Your task to perform on an android device: check the backup settings in the google photos Image 0: 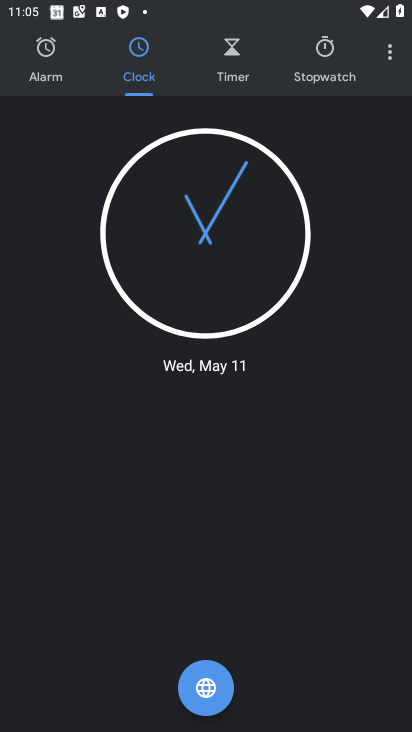
Step 0: press home button
Your task to perform on an android device: check the backup settings in the google photos Image 1: 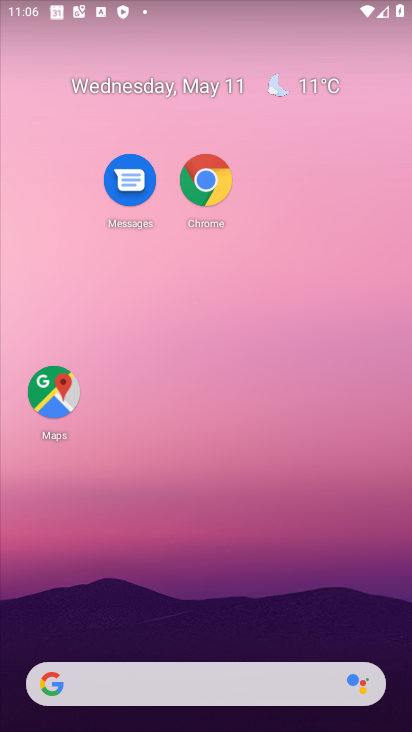
Step 1: drag from (190, 617) to (279, 249)
Your task to perform on an android device: check the backup settings in the google photos Image 2: 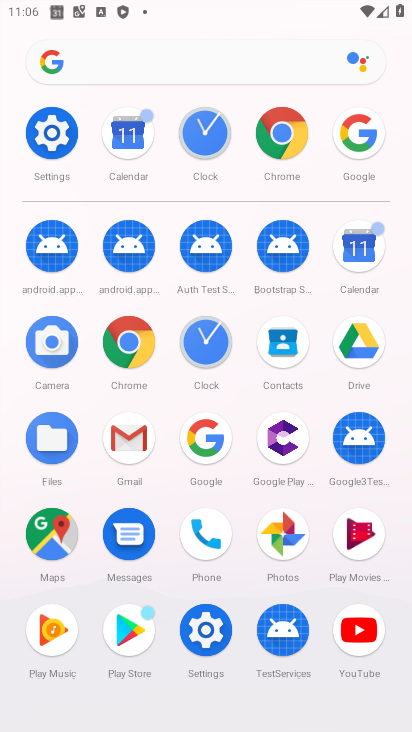
Step 2: click (293, 542)
Your task to perform on an android device: check the backup settings in the google photos Image 3: 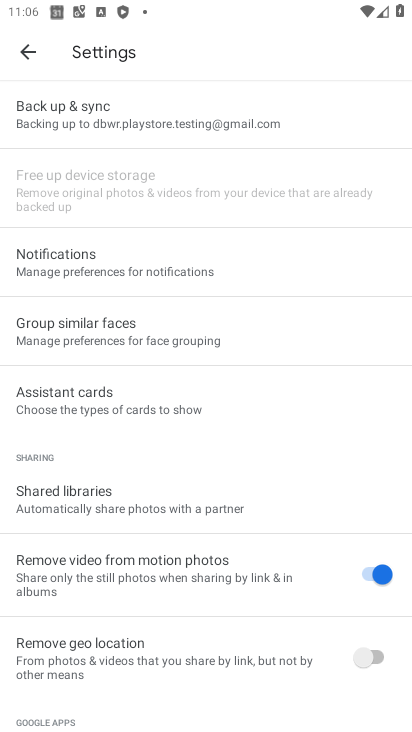
Step 3: press back button
Your task to perform on an android device: check the backup settings in the google photos Image 4: 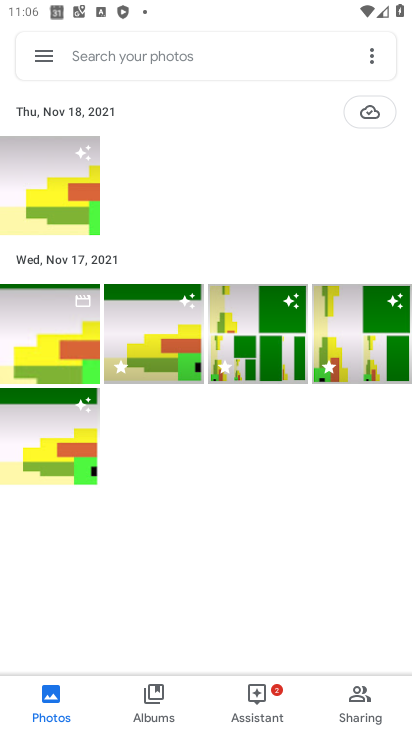
Step 4: click (38, 72)
Your task to perform on an android device: check the backup settings in the google photos Image 5: 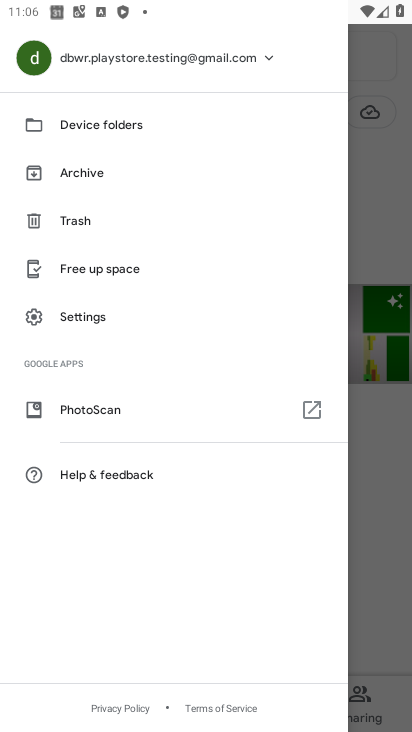
Step 5: click (107, 321)
Your task to perform on an android device: check the backup settings in the google photos Image 6: 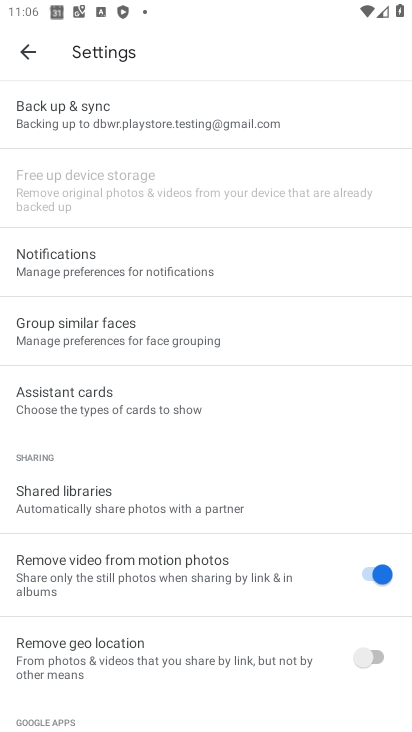
Step 6: click (233, 116)
Your task to perform on an android device: check the backup settings in the google photos Image 7: 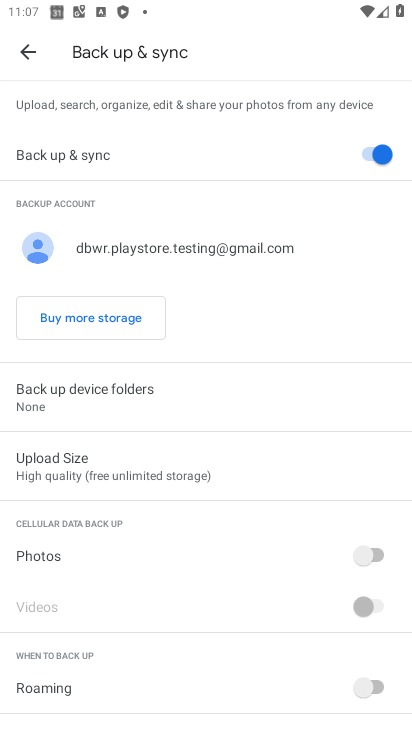
Step 7: task complete